Your task to perform on an android device: see creations saved in the google photos Image 0: 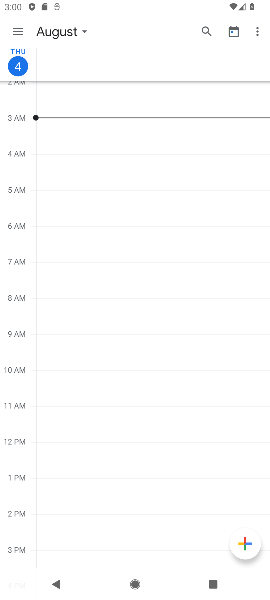
Step 0: press home button
Your task to perform on an android device: see creations saved in the google photos Image 1: 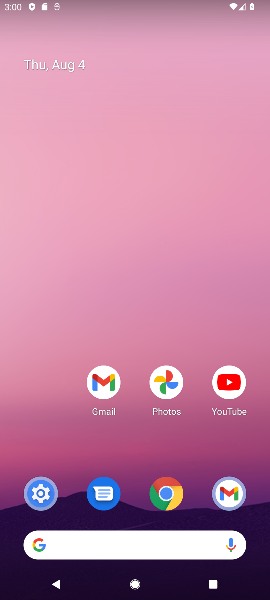
Step 1: drag from (177, 528) to (198, 197)
Your task to perform on an android device: see creations saved in the google photos Image 2: 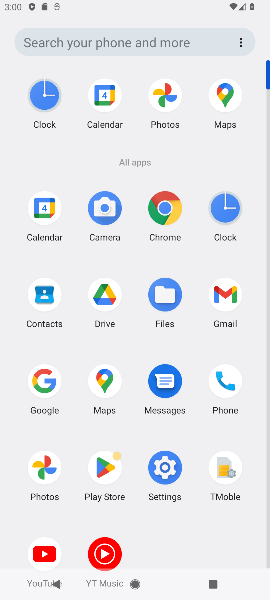
Step 2: click (54, 460)
Your task to perform on an android device: see creations saved in the google photos Image 3: 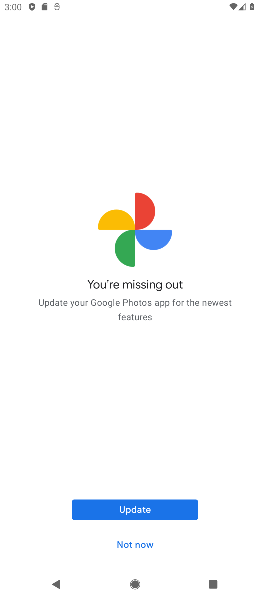
Step 3: click (147, 538)
Your task to perform on an android device: see creations saved in the google photos Image 4: 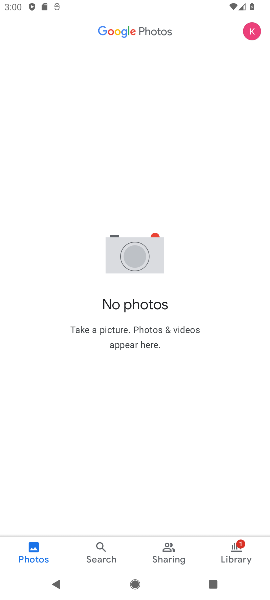
Step 4: click (234, 538)
Your task to perform on an android device: see creations saved in the google photos Image 5: 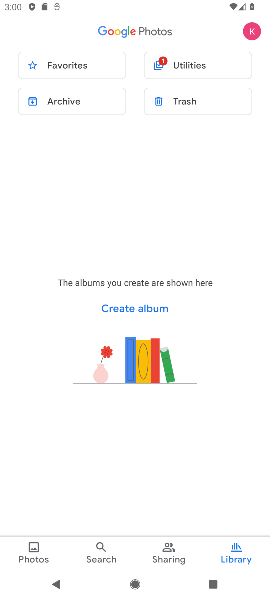
Step 5: click (78, 58)
Your task to perform on an android device: see creations saved in the google photos Image 6: 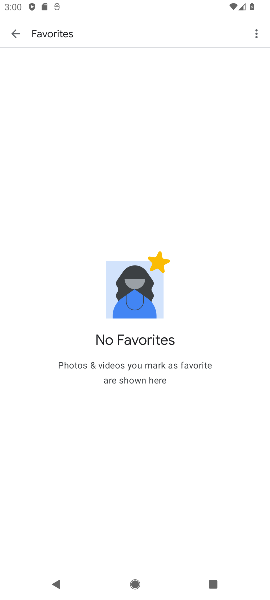
Step 6: click (15, 35)
Your task to perform on an android device: see creations saved in the google photos Image 7: 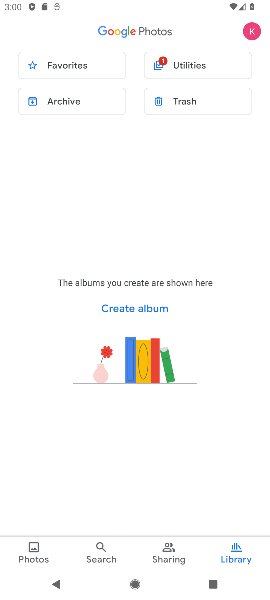
Step 7: click (66, 94)
Your task to perform on an android device: see creations saved in the google photos Image 8: 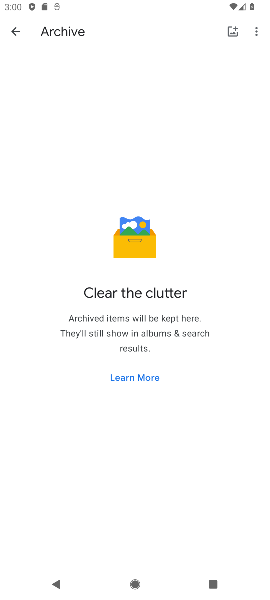
Step 8: click (8, 20)
Your task to perform on an android device: see creations saved in the google photos Image 9: 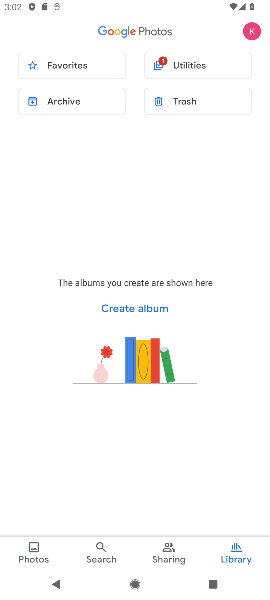
Step 9: task complete